Your task to perform on an android device: toggle show notifications on the lock screen Image 0: 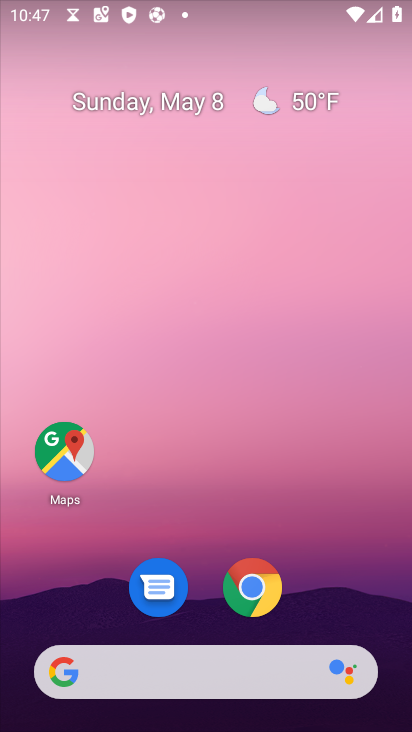
Step 0: drag from (327, 630) to (231, 95)
Your task to perform on an android device: toggle show notifications on the lock screen Image 1: 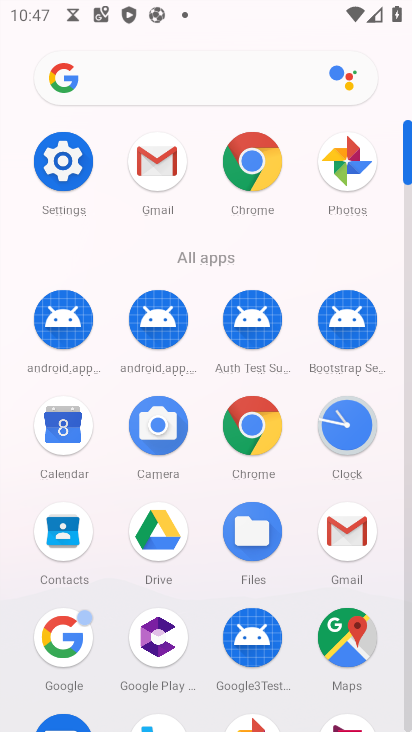
Step 1: click (65, 162)
Your task to perform on an android device: toggle show notifications on the lock screen Image 2: 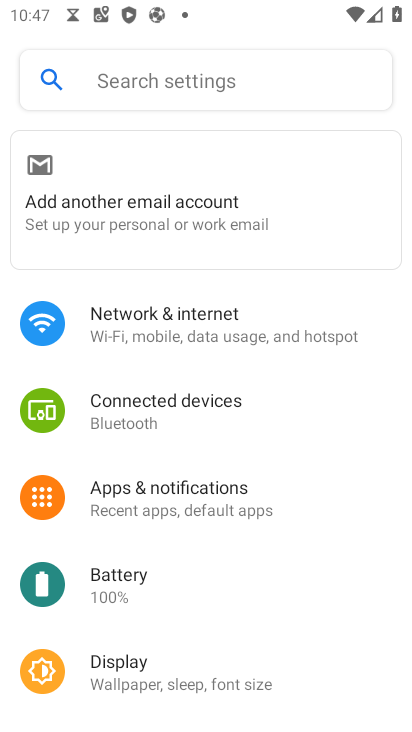
Step 2: click (186, 503)
Your task to perform on an android device: toggle show notifications on the lock screen Image 3: 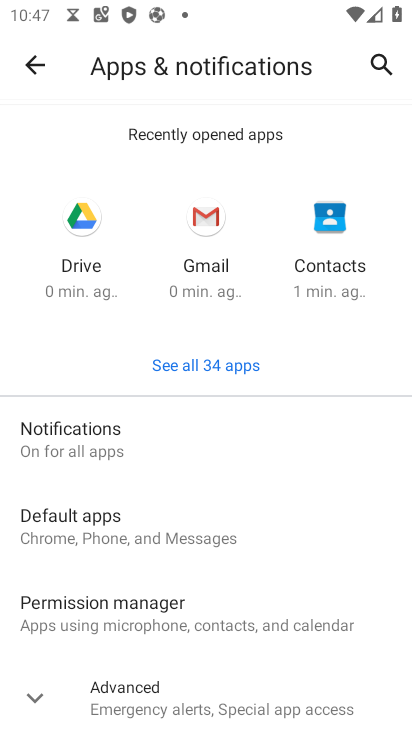
Step 3: click (93, 446)
Your task to perform on an android device: toggle show notifications on the lock screen Image 4: 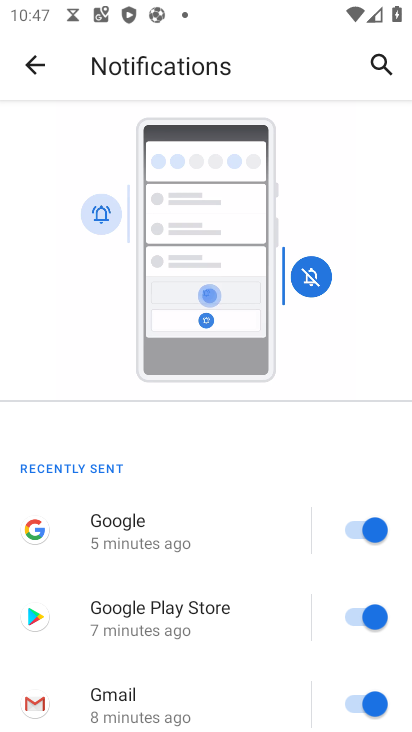
Step 4: drag from (186, 648) to (176, 216)
Your task to perform on an android device: toggle show notifications on the lock screen Image 5: 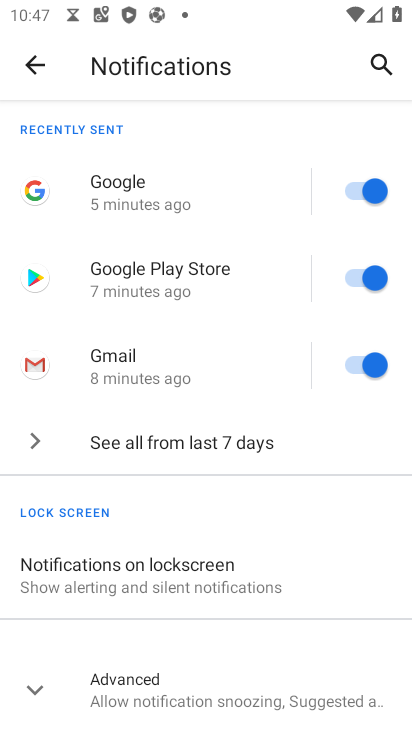
Step 5: click (103, 582)
Your task to perform on an android device: toggle show notifications on the lock screen Image 6: 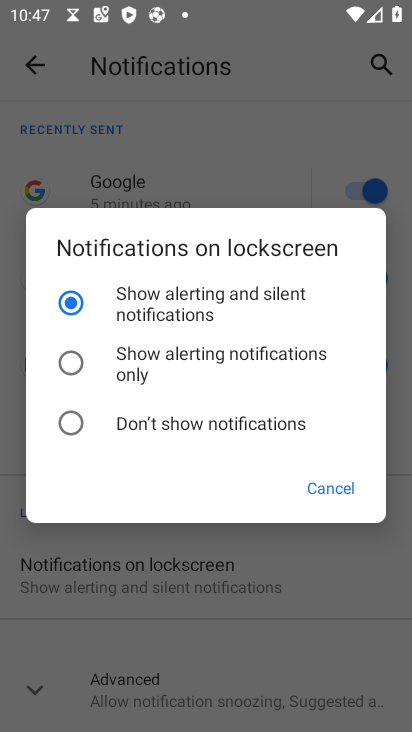
Step 6: click (145, 367)
Your task to perform on an android device: toggle show notifications on the lock screen Image 7: 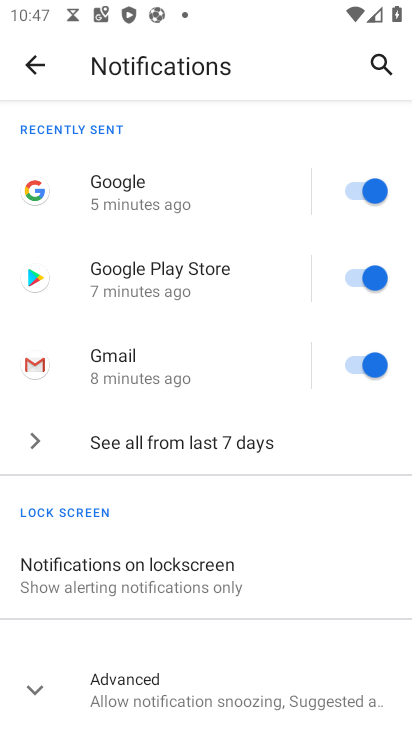
Step 7: task complete